Your task to perform on an android device: delete browsing data in the chrome app Image 0: 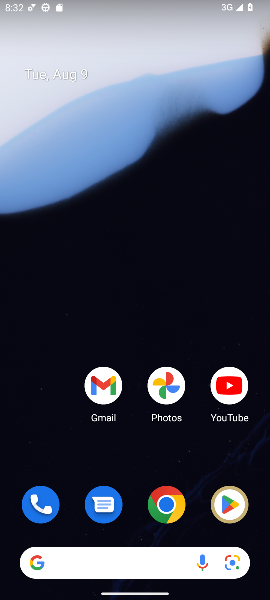
Step 0: click (166, 505)
Your task to perform on an android device: delete browsing data in the chrome app Image 1: 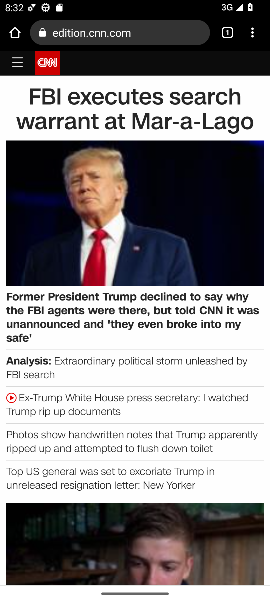
Step 1: click (246, 29)
Your task to perform on an android device: delete browsing data in the chrome app Image 2: 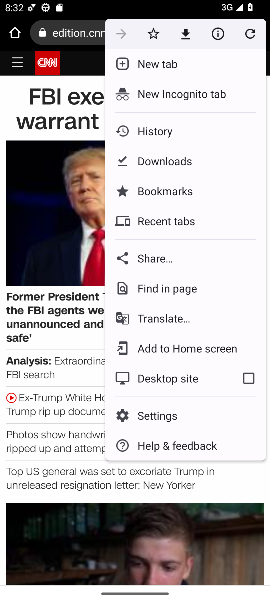
Step 2: click (154, 127)
Your task to perform on an android device: delete browsing data in the chrome app Image 3: 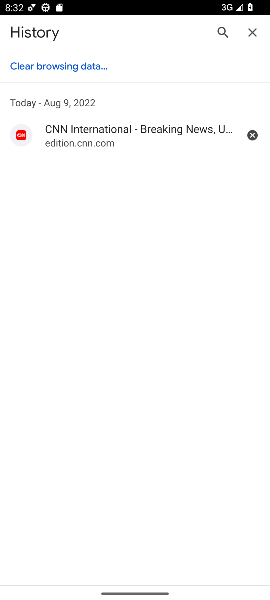
Step 3: click (69, 63)
Your task to perform on an android device: delete browsing data in the chrome app Image 4: 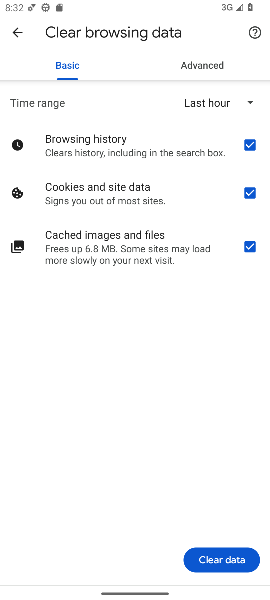
Step 4: click (224, 556)
Your task to perform on an android device: delete browsing data in the chrome app Image 5: 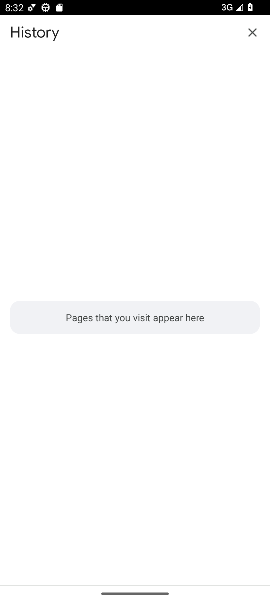
Step 5: task complete